Your task to perform on an android device: turn on priority inbox in the gmail app Image 0: 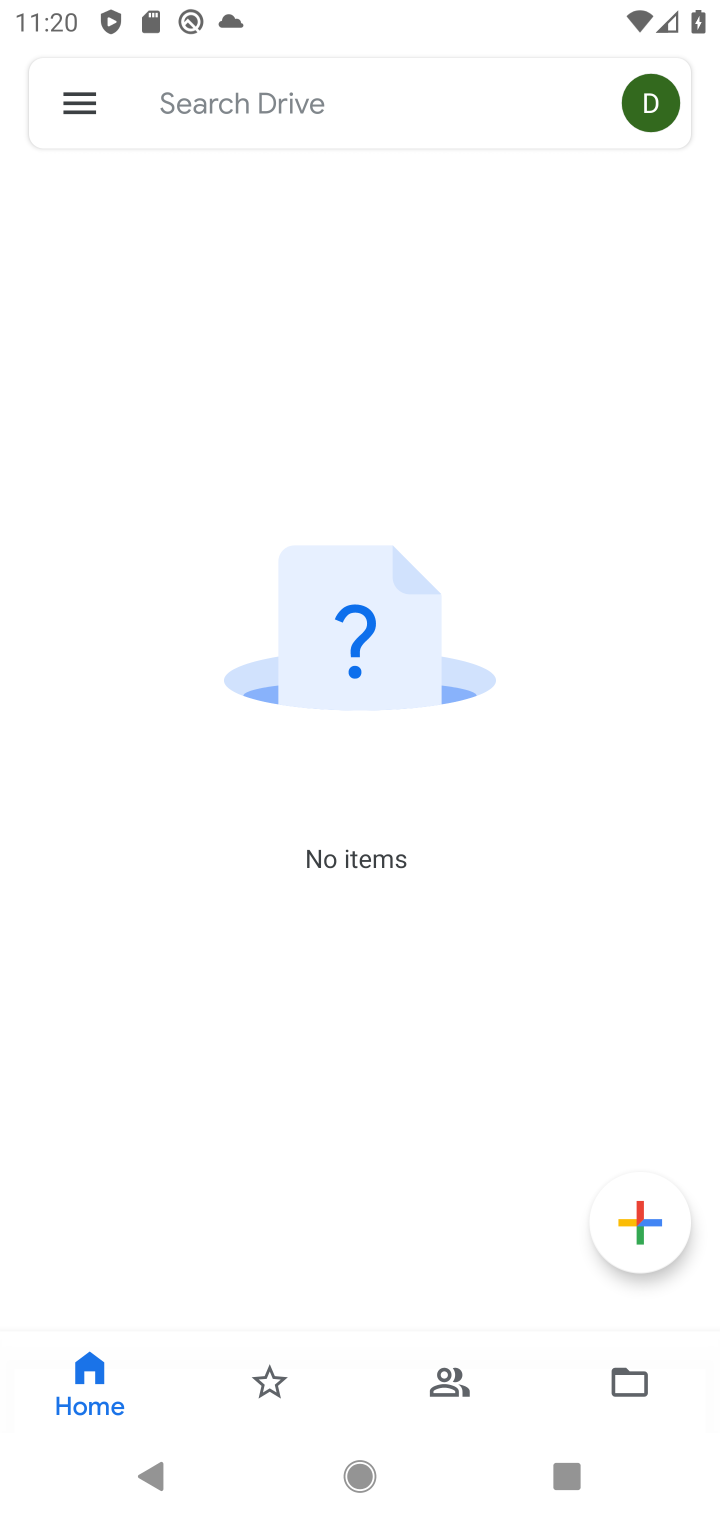
Step 0: press home button
Your task to perform on an android device: turn on priority inbox in the gmail app Image 1: 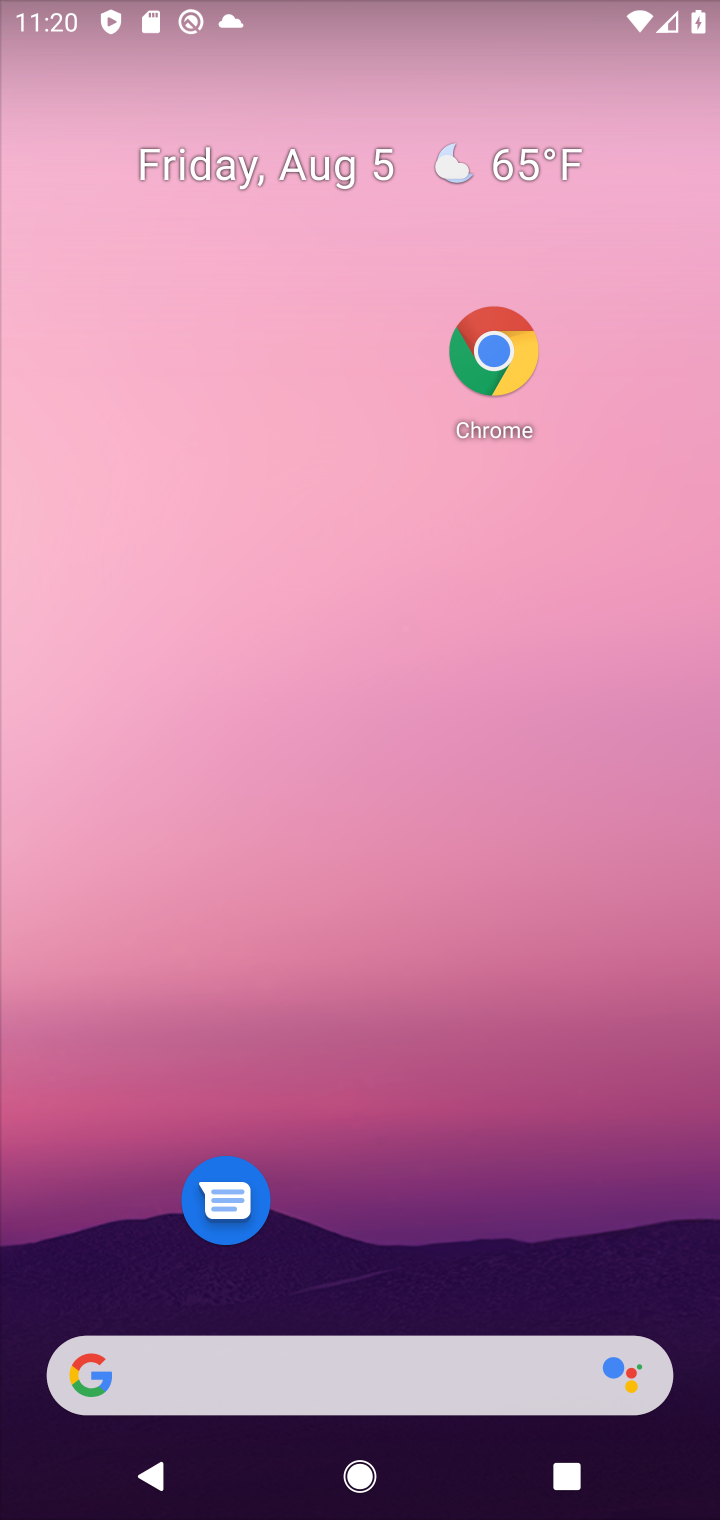
Step 1: drag from (389, 1030) to (585, 193)
Your task to perform on an android device: turn on priority inbox in the gmail app Image 2: 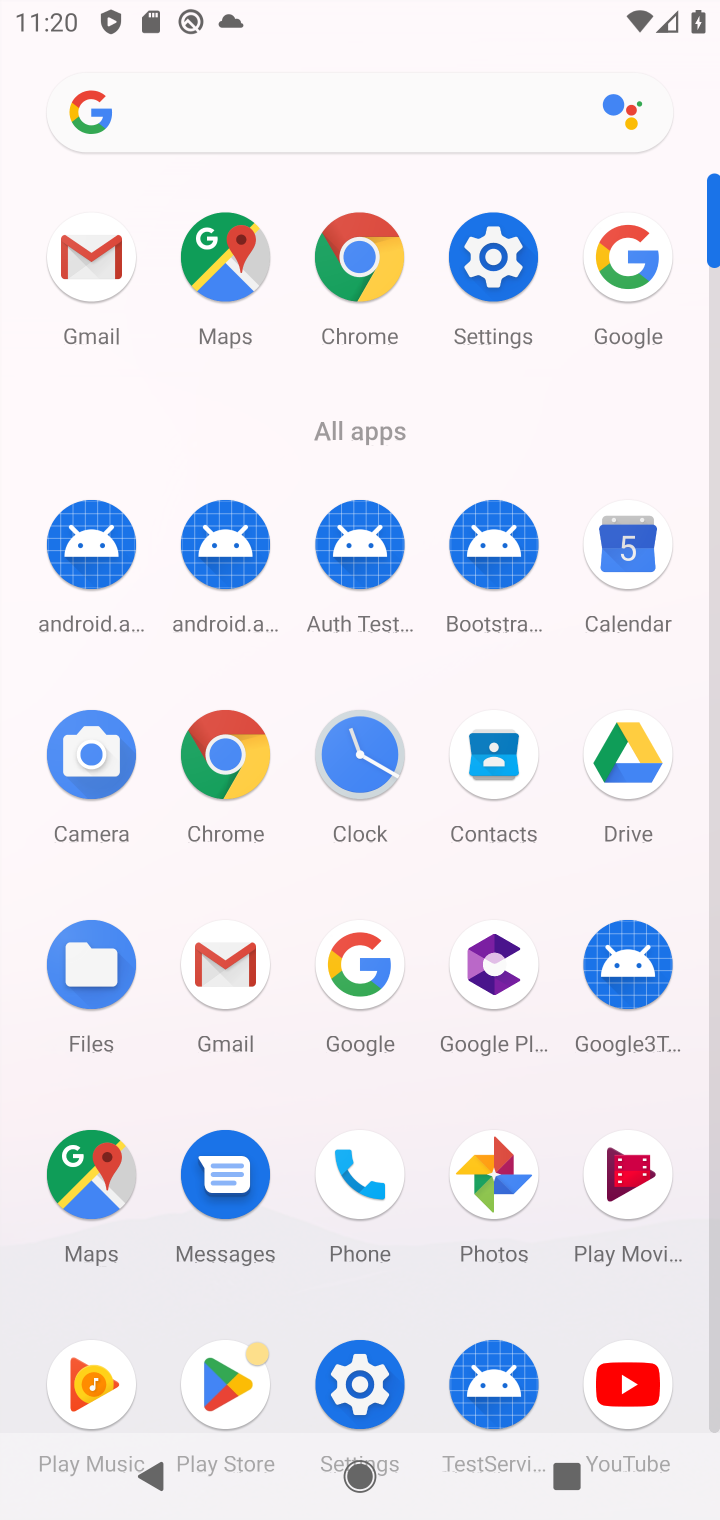
Step 2: click (355, 293)
Your task to perform on an android device: turn on priority inbox in the gmail app Image 3: 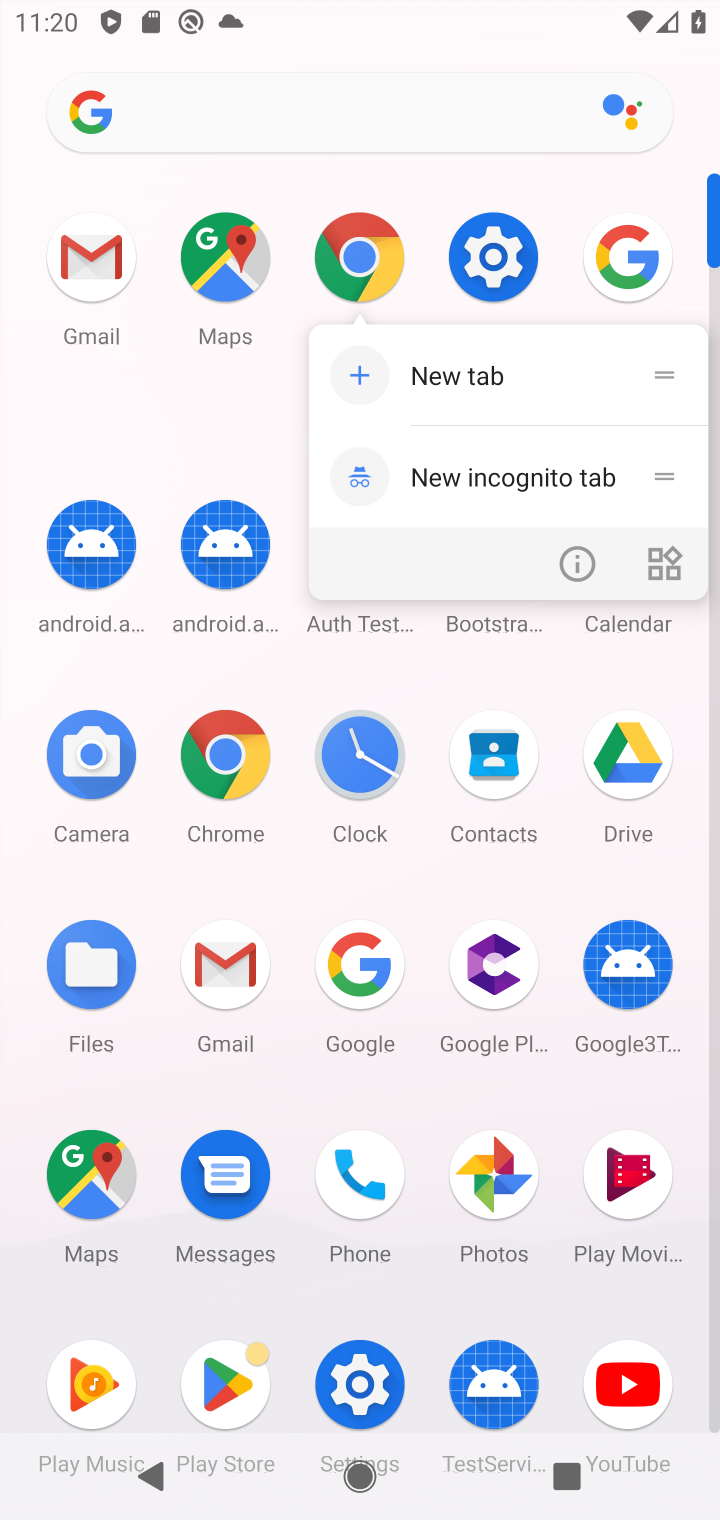
Step 3: click (635, 249)
Your task to perform on an android device: turn on priority inbox in the gmail app Image 4: 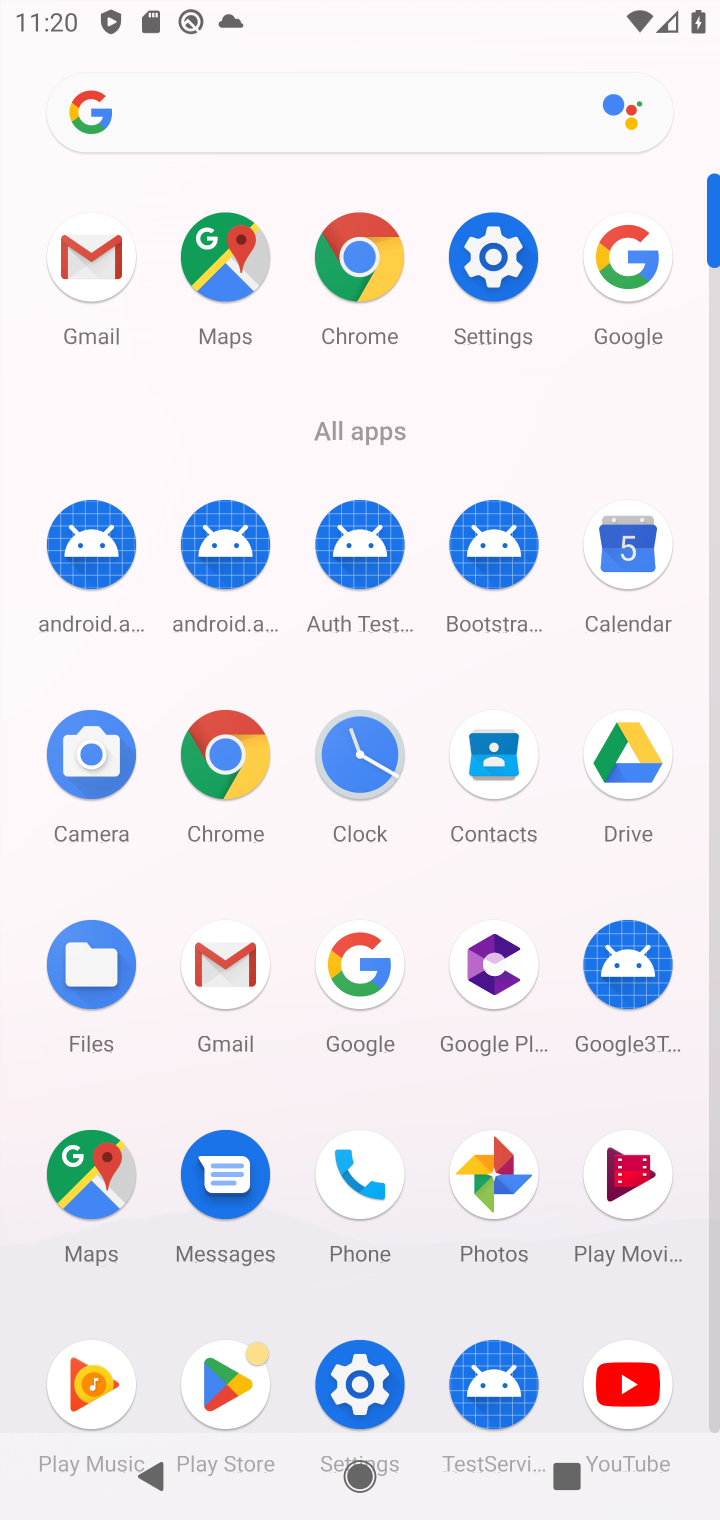
Step 4: click (638, 268)
Your task to perform on an android device: turn on priority inbox in the gmail app Image 5: 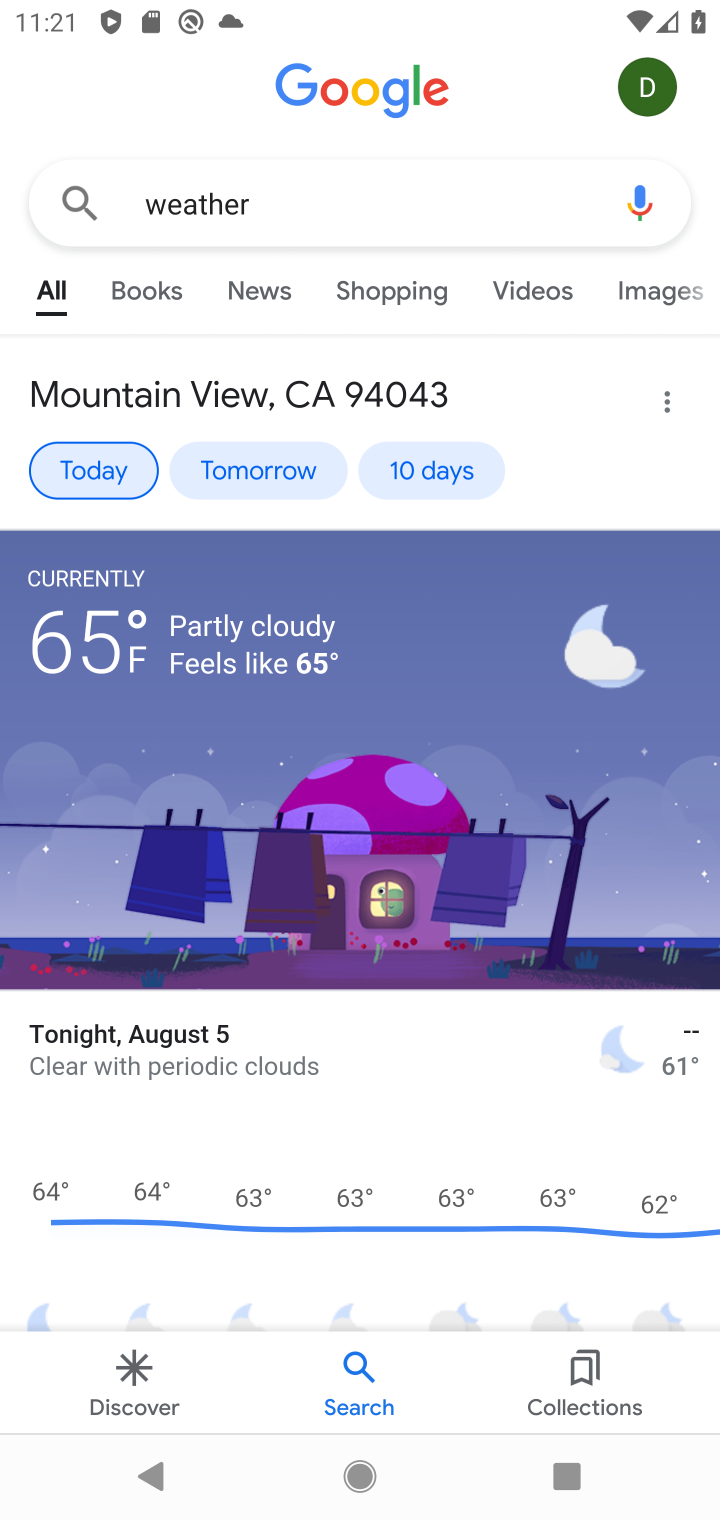
Step 5: press home button
Your task to perform on an android device: turn on priority inbox in the gmail app Image 6: 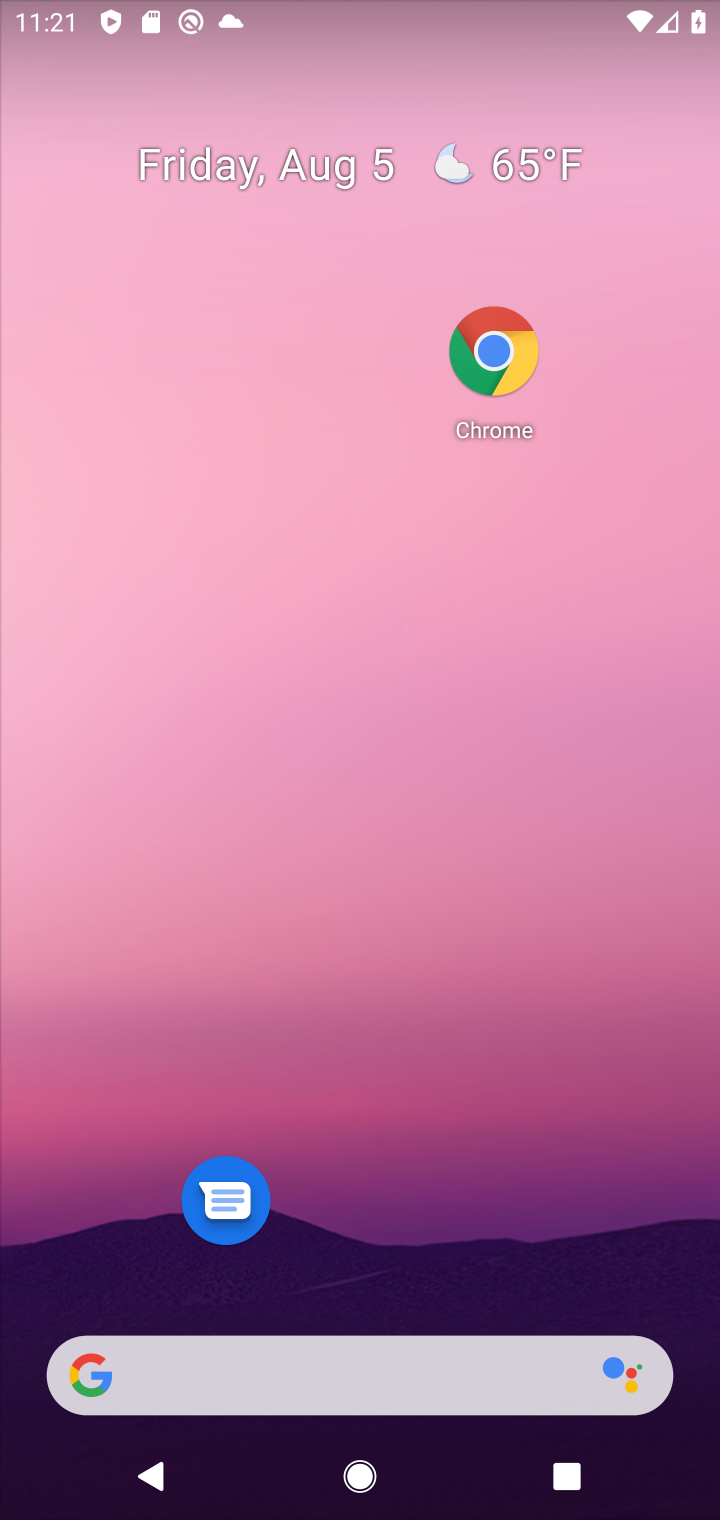
Step 6: drag from (596, 1287) to (234, 228)
Your task to perform on an android device: turn on priority inbox in the gmail app Image 7: 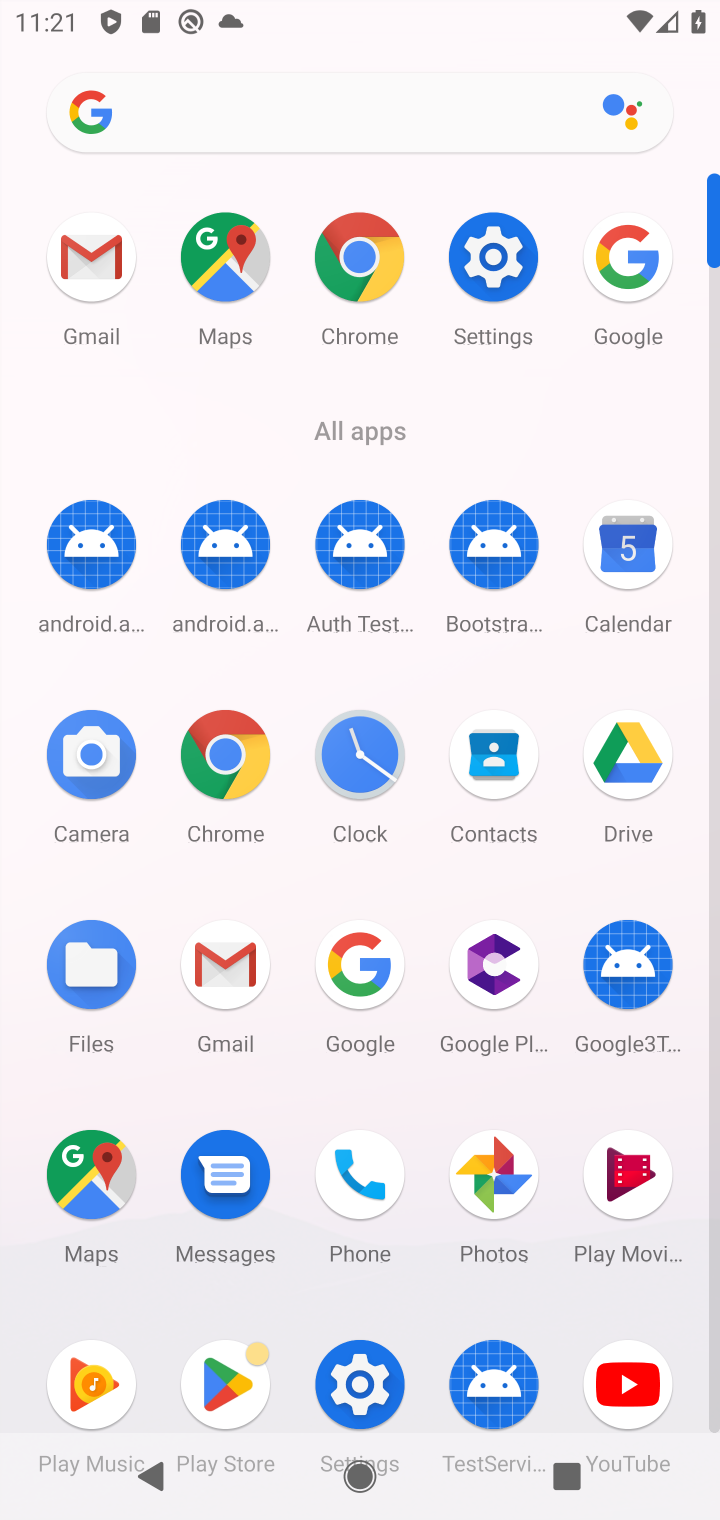
Step 7: click (235, 957)
Your task to perform on an android device: turn on priority inbox in the gmail app Image 8: 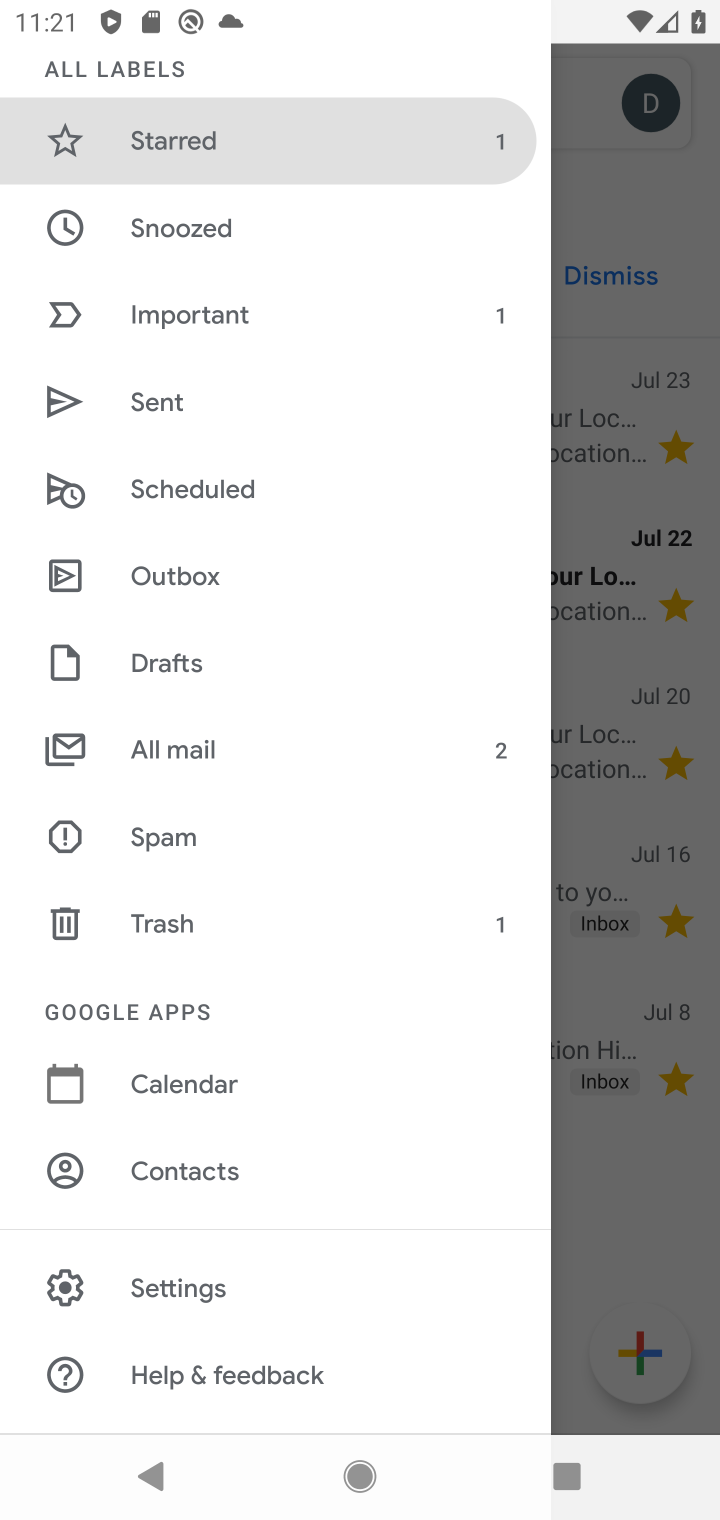
Step 8: click (222, 1288)
Your task to perform on an android device: turn on priority inbox in the gmail app Image 9: 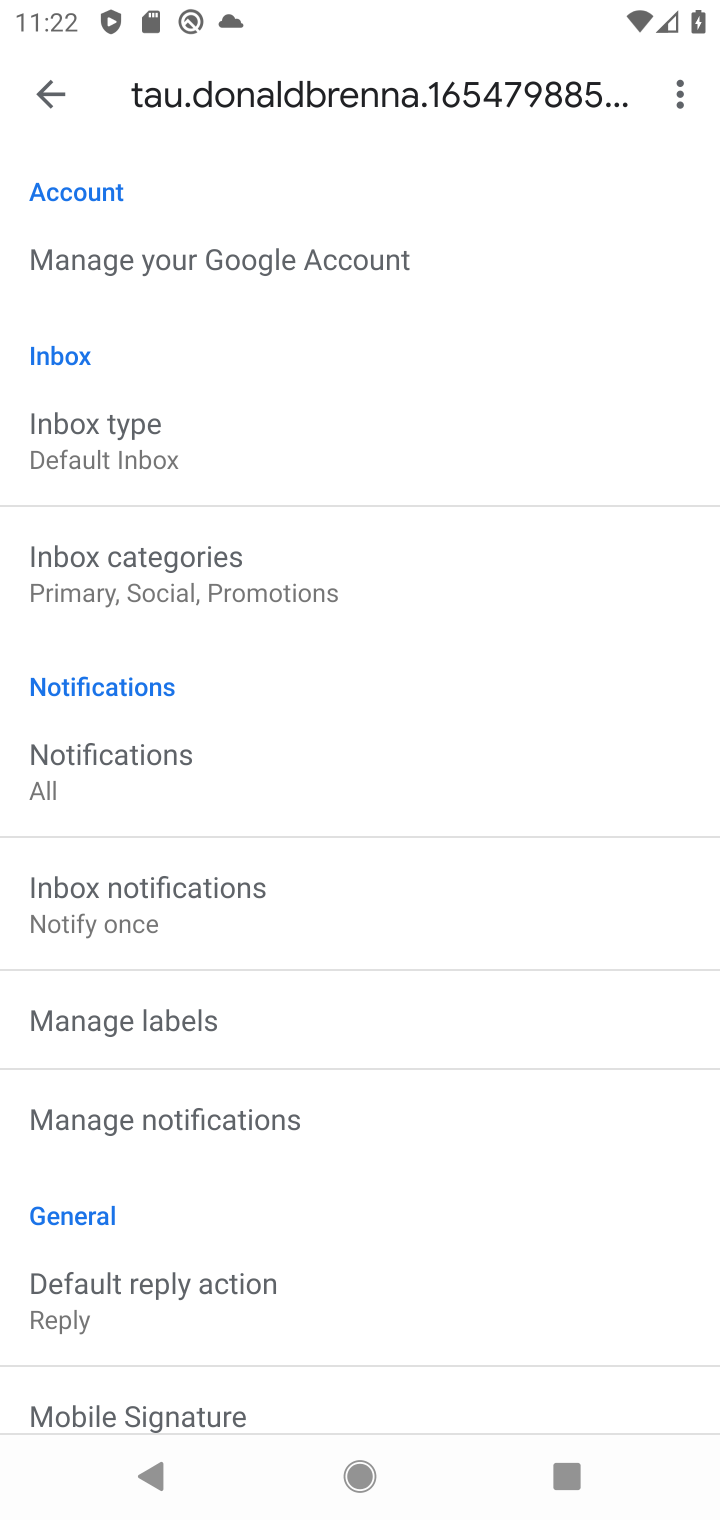
Step 9: click (152, 452)
Your task to perform on an android device: turn on priority inbox in the gmail app Image 10: 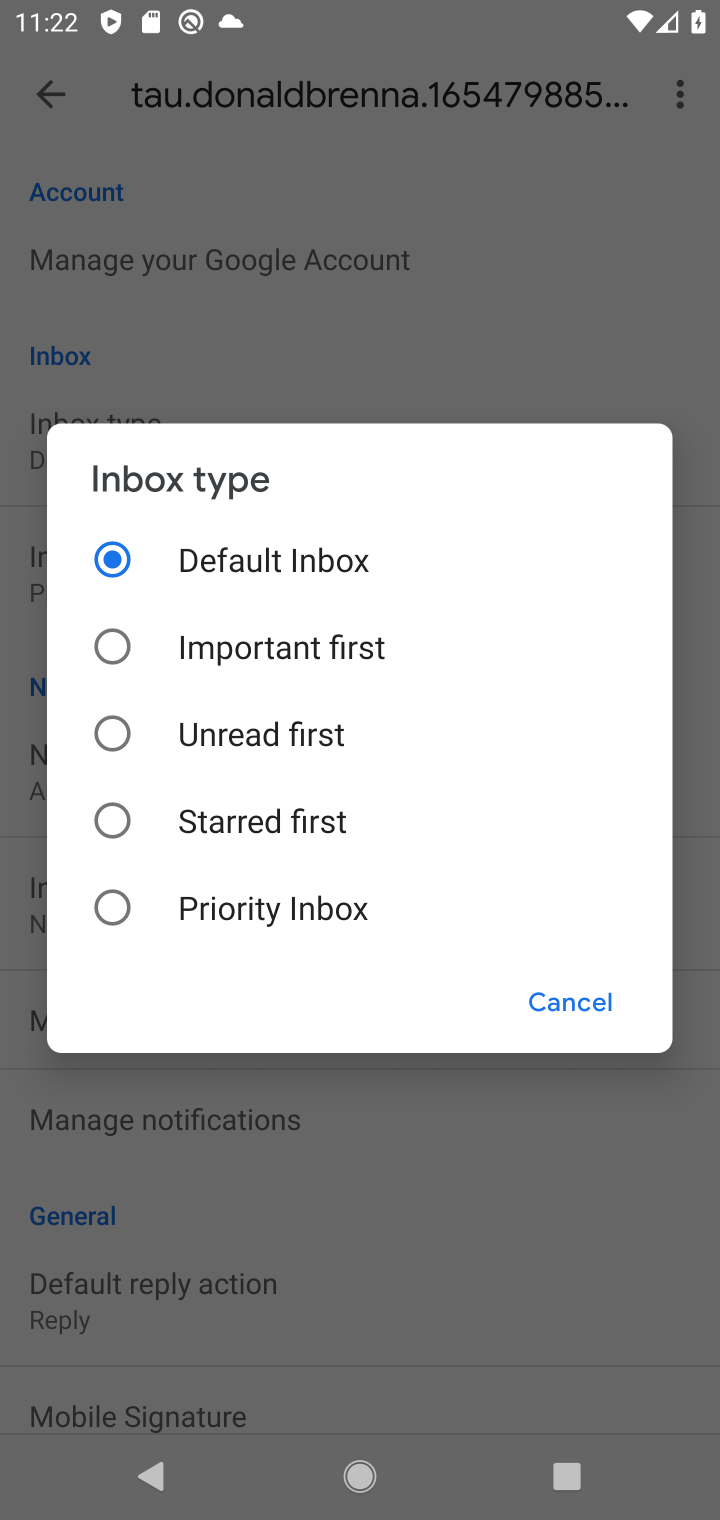
Step 10: click (118, 916)
Your task to perform on an android device: turn on priority inbox in the gmail app Image 11: 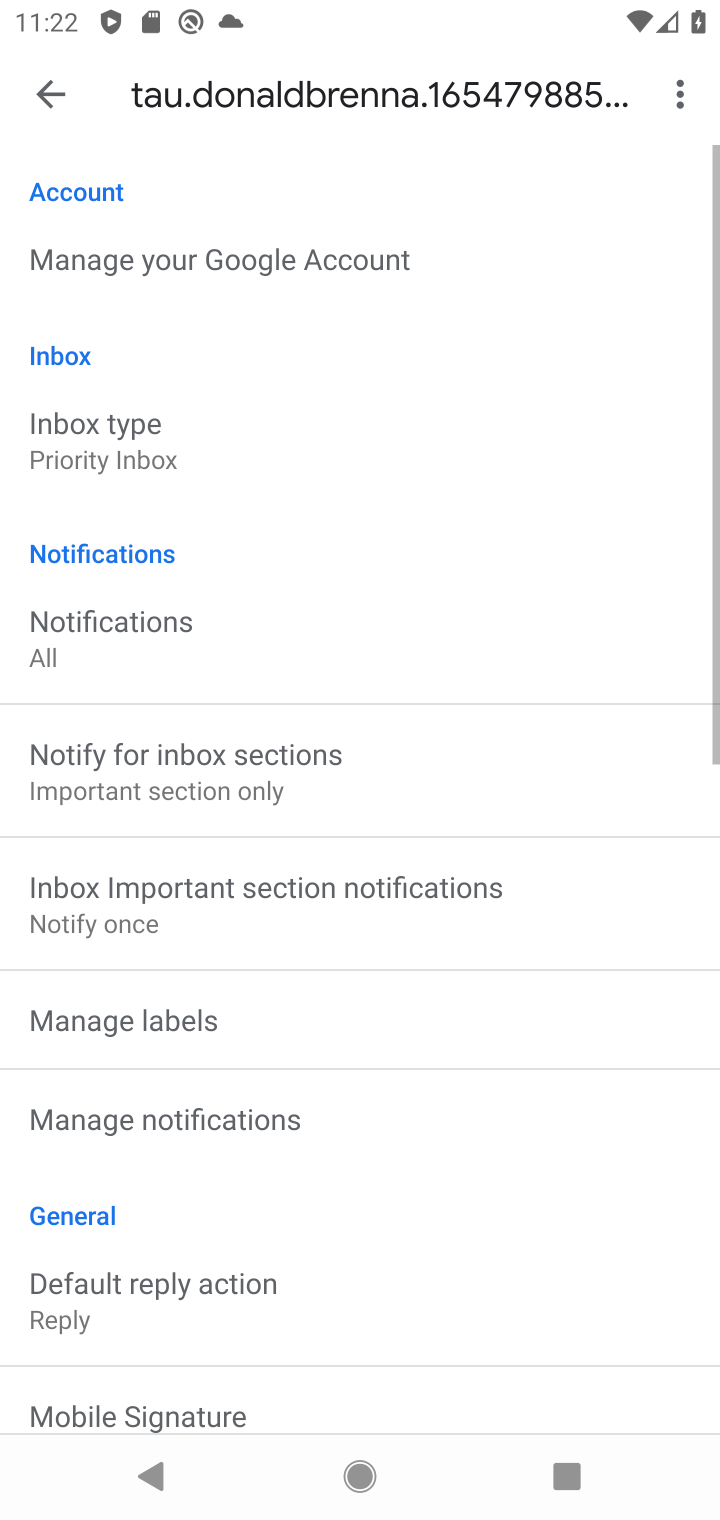
Step 11: task complete